Your task to perform on an android device: open sync settings in chrome Image 0: 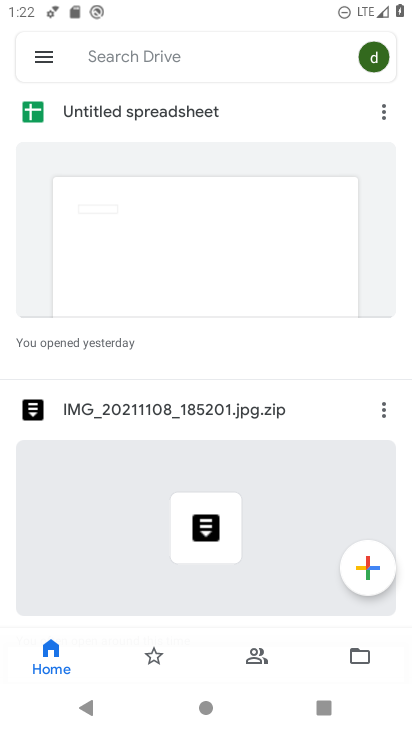
Step 0: press home button
Your task to perform on an android device: open sync settings in chrome Image 1: 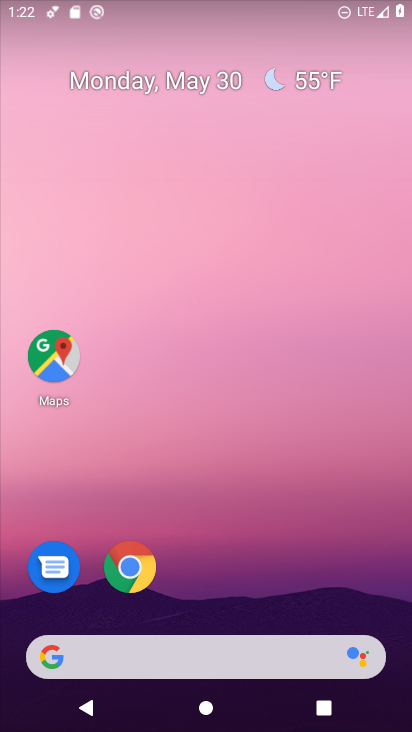
Step 1: click (126, 564)
Your task to perform on an android device: open sync settings in chrome Image 2: 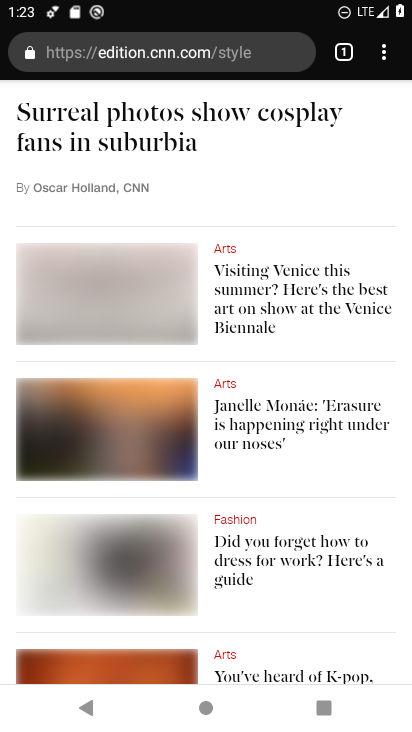
Step 2: click (381, 48)
Your task to perform on an android device: open sync settings in chrome Image 3: 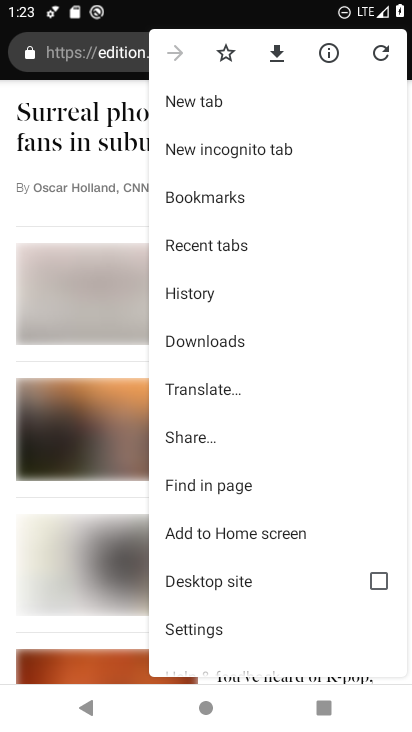
Step 3: click (226, 626)
Your task to perform on an android device: open sync settings in chrome Image 4: 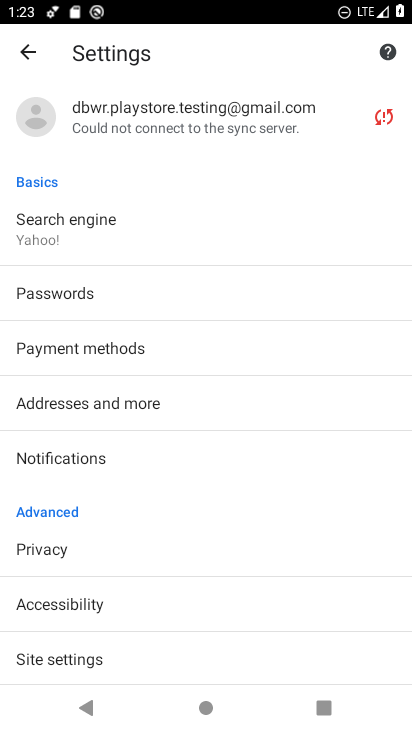
Step 4: click (219, 127)
Your task to perform on an android device: open sync settings in chrome Image 5: 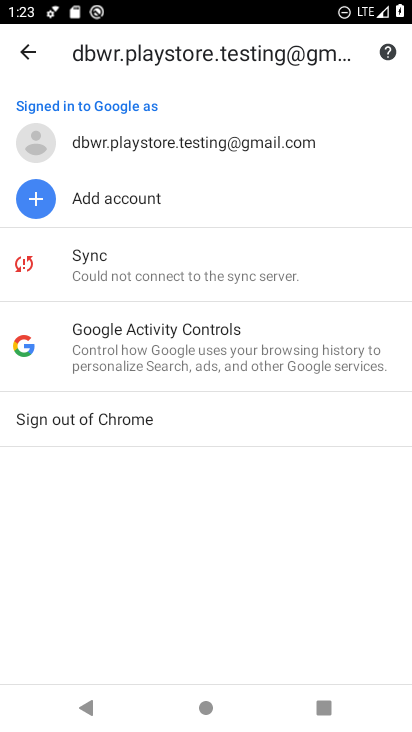
Step 5: click (115, 267)
Your task to perform on an android device: open sync settings in chrome Image 6: 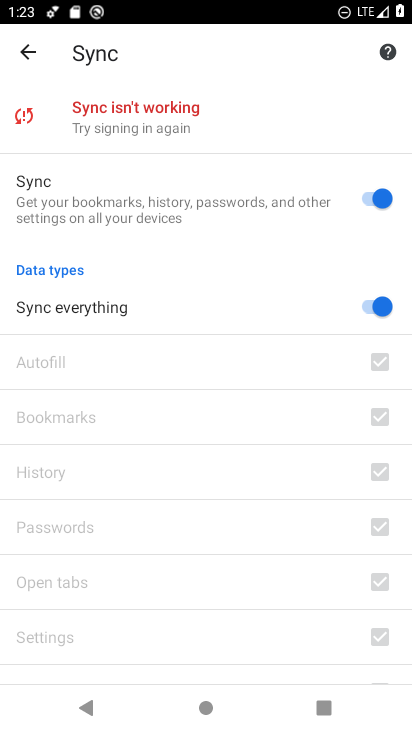
Step 6: task complete